Your task to perform on an android device: Search for the best selling jewelry on Etsy. Image 0: 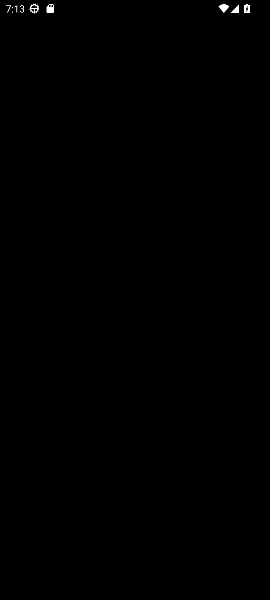
Step 0: press home button
Your task to perform on an android device: Search for the best selling jewelry on Etsy. Image 1: 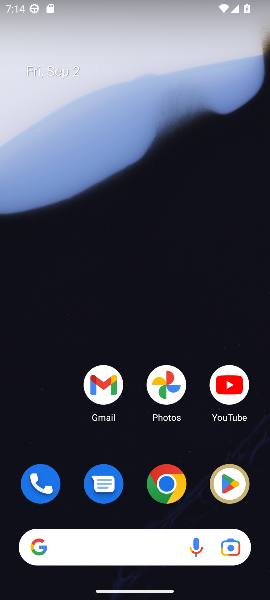
Step 1: click (155, 488)
Your task to perform on an android device: Search for the best selling jewelry on Etsy. Image 2: 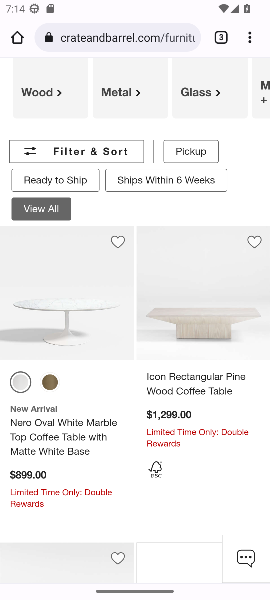
Step 2: click (116, 34)
Your task to perform on an android device: Search for the best selling jewelry on Etsy. Image 3: 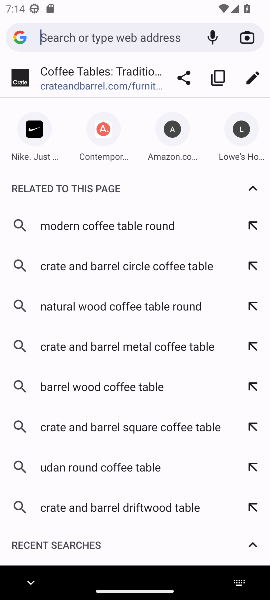
Step 3: type "Etsy"
Your task to perform on an android device: Search for the best selling jewelry on Etsy. Image 4: 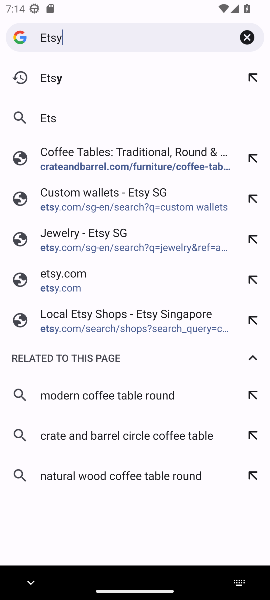
Step 4: press enter
Your task to perform on an android device: Search for the best selling jewelry on Etsy. Image 5: 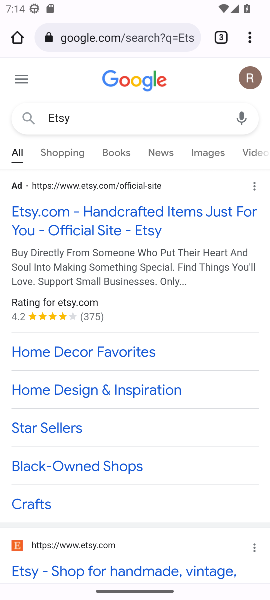
Step 5: drag from (147, 438) to (182, 481)
Your task to perform on an android device: Search for the best selling jewelry on Etsy. Image 6: 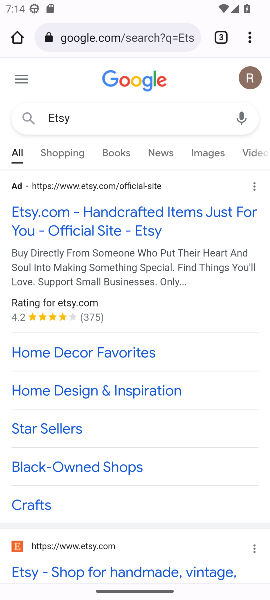
Step 6: click (112, 211)
Your task to perform on an android device: Search for the best selling jewelry on Etsy. Image 7: 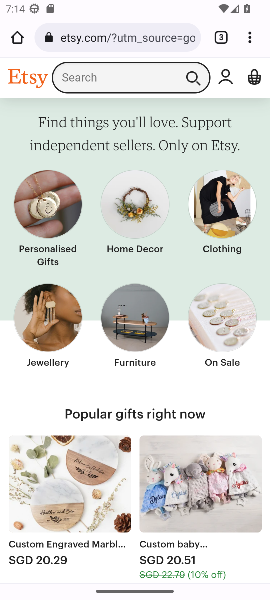
Step 7: click (111, 78)
Your task to perform on an android device: Search for the best selling jewelry on Etsy. Image 8: 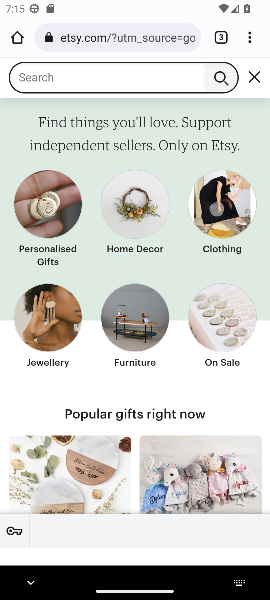
Step 8: type " best selling jewelry"
Your task to perform on an android device: Search for the best selling jewelry on Etsy. Image 9: 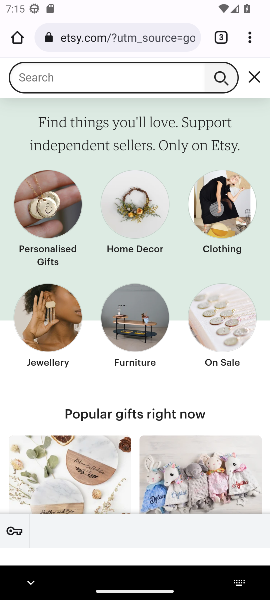
Step 9: press enter
Your task to perform on an android device: Search for the best selling jewelry on Etsy. Image 10: 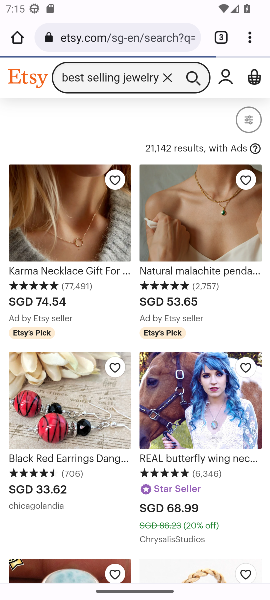
Step 10: task complete